Your task to perform on an android device: Check the news Image 0: 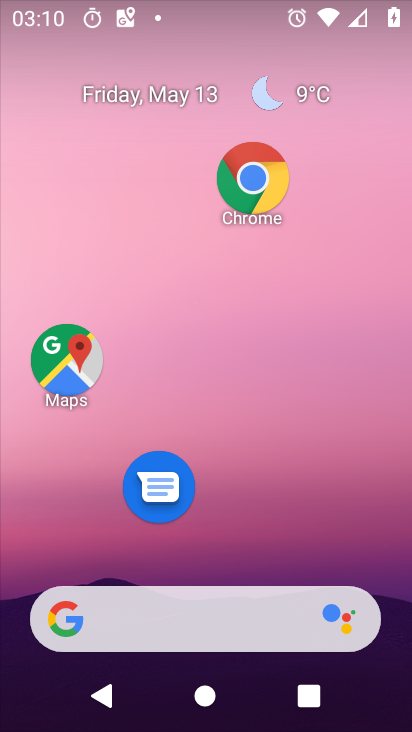
Step 0: drag from (283, 521) to (281, 37)
Your task to perform on an android device: Check the news Image 1: 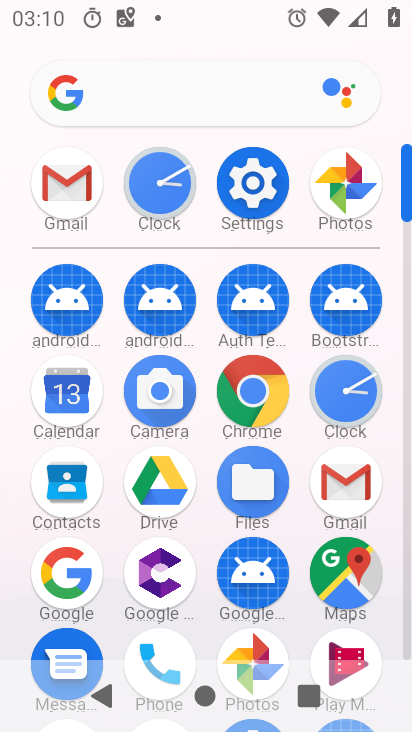
Step 1: click (68, 570)
Your task to perform on an android device: Check the news Image 2: 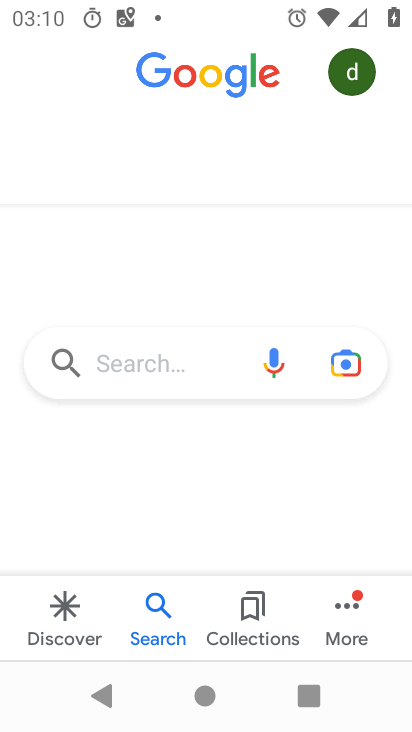
Step 2: click (145, 366)
Your task to perform on an android device: Check the news Image 3: 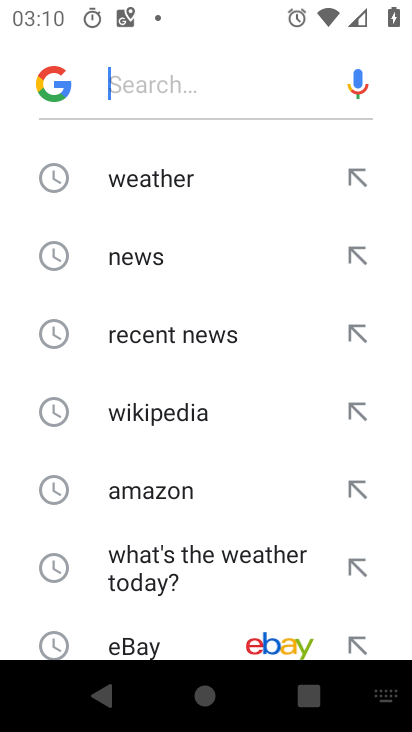
Step 3: click (142, 250)
Your task to perform on an android device: Check the news Image 4: 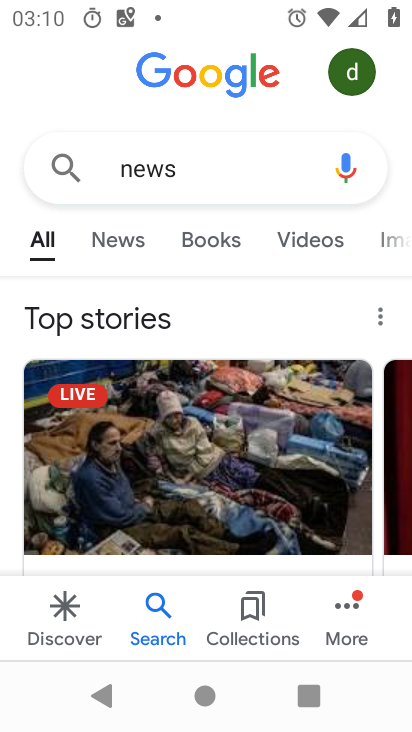
Step 4: task complete